Your task to perform on an android device: turn on improve location accuracy Image 0: 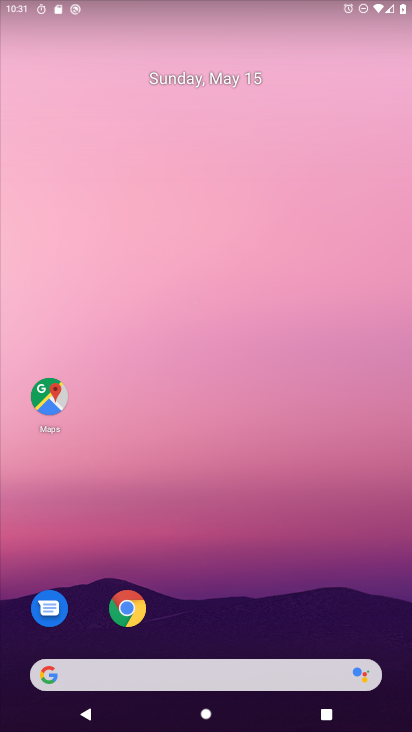
Step 0: drag from (316, 570) to (328, 50)
Your task to perform on an android device: turn on improve location accuracy Image 1: 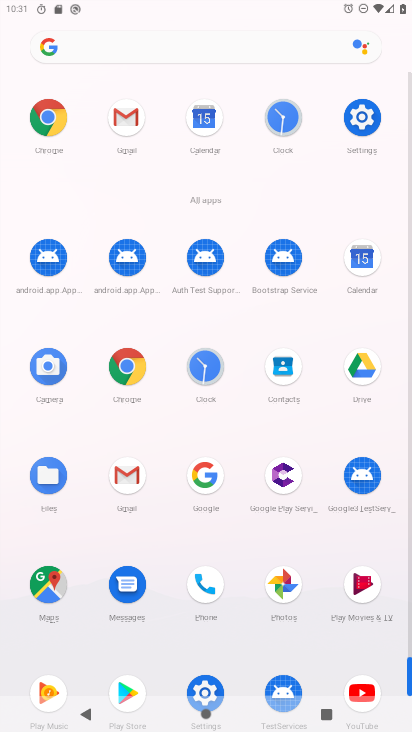
Step 1: drag from (237, 642) to (241, 284)
Your task to perform on an android device: turn on improve location accuracy Image 2: 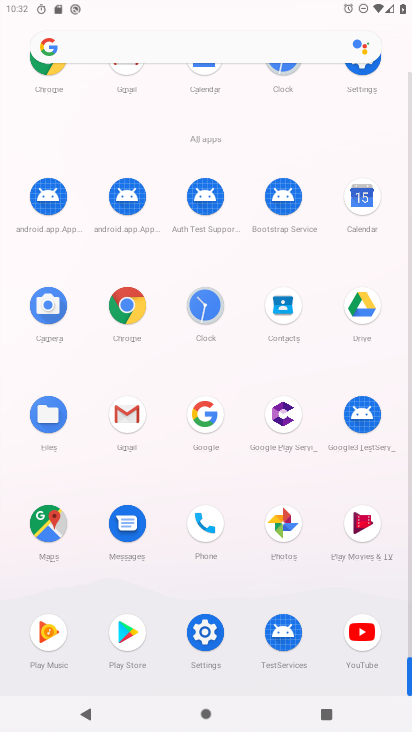
Step 2: drag from (326, 240) to (310, 472)
Your task to perform on an android device: turn on improve location accuracy Image 3: 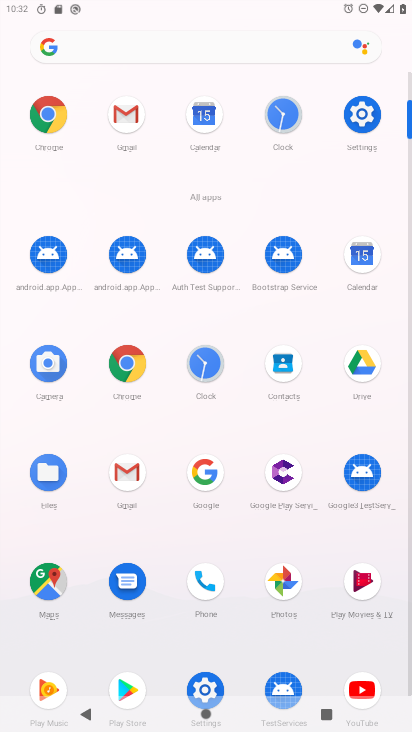
Step 3: click (367, 115)
Your task to perform on an android device: turn on improve location accuracy Image 4: 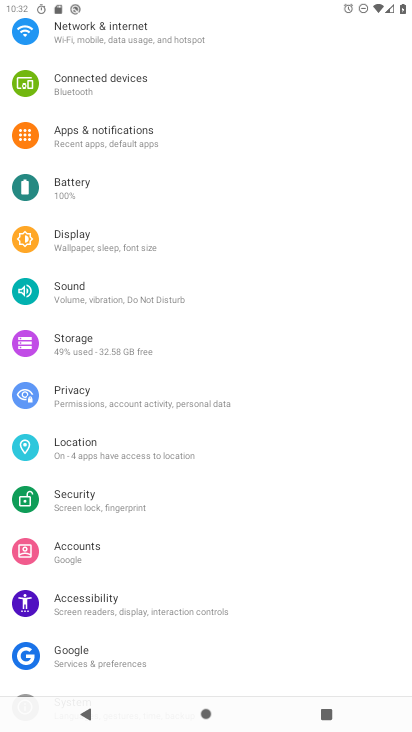
Step 4: drag from (228, 615) to (253, 265)
Your task to perform on an android device: turn on improve location accuracy Image 5: 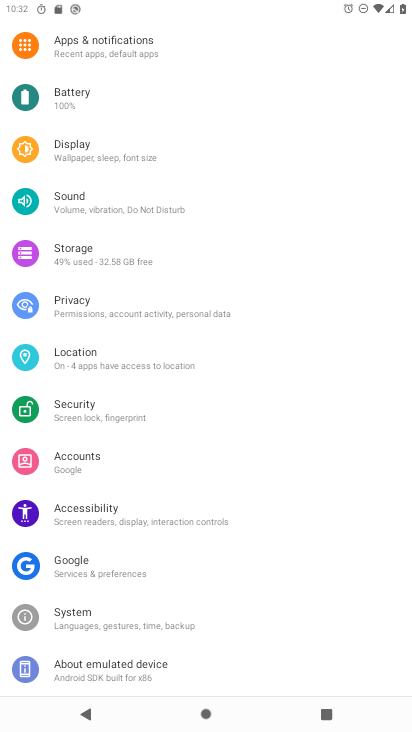
Step 5: click (148, 364)
Your task to perform on an android device: turn on improve location accuracy Image 6: 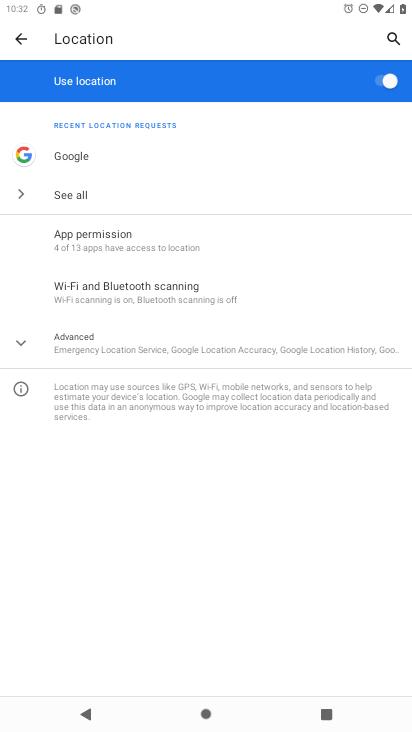
Step 6: click (151, 342)
Your task to perform on an android device: turn on improve location accuracy Image 7: 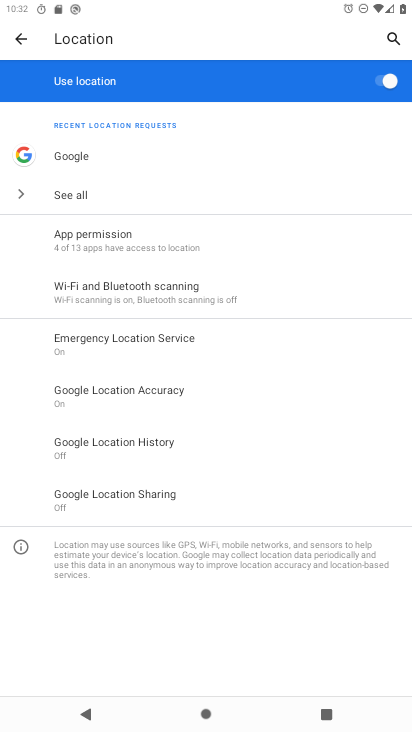
Step 7: click (141, 383)
Your task to perform on an android device: turn on improve location accuracy Image 8: 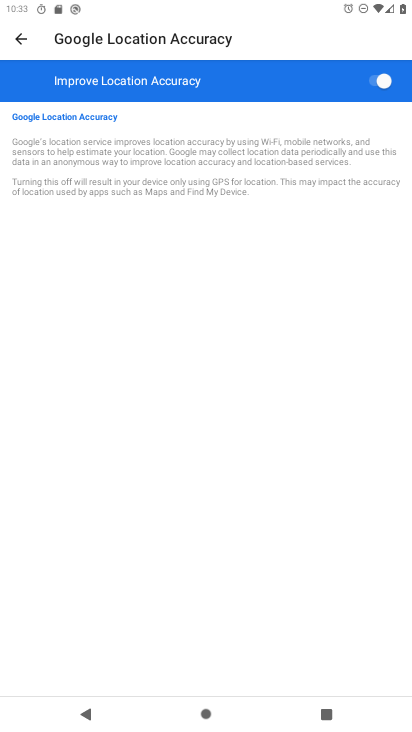
Step 8: task complete